Your task to perform on an android device: Show me productivity apps on the Play Store Image 0: 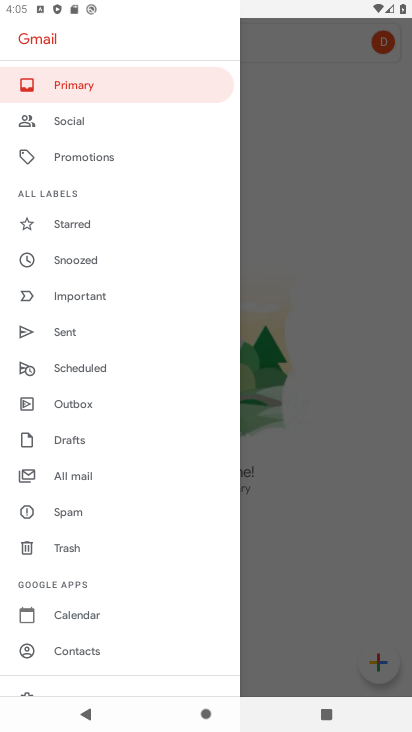
Step 0: press home button
Your task to perform on an android device: Show me productivity apps on the Play Store Image 1: 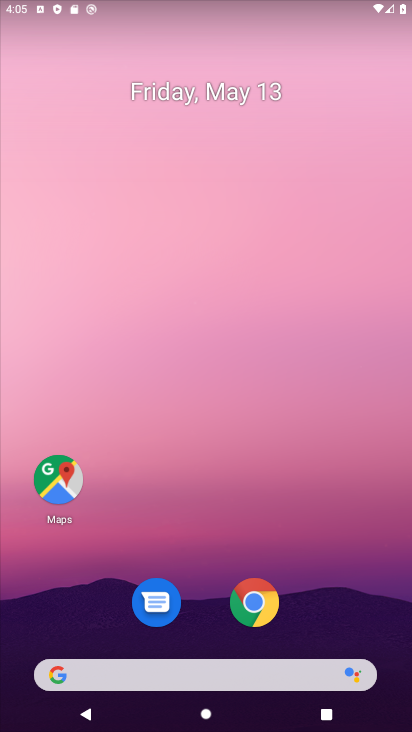
Step 1: drag from (196, 662) to (219, 282)
Your task to perform on an android device: Show me productivity apps on the Play Store Image 2: 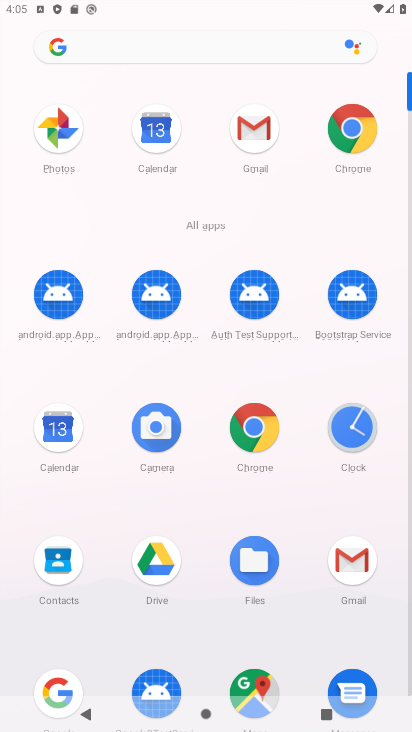
Step 2: drag from (203, 655) to (200, 358)
Your task to perform on an android device: Show me productivity apps on the Play Store Image 3: 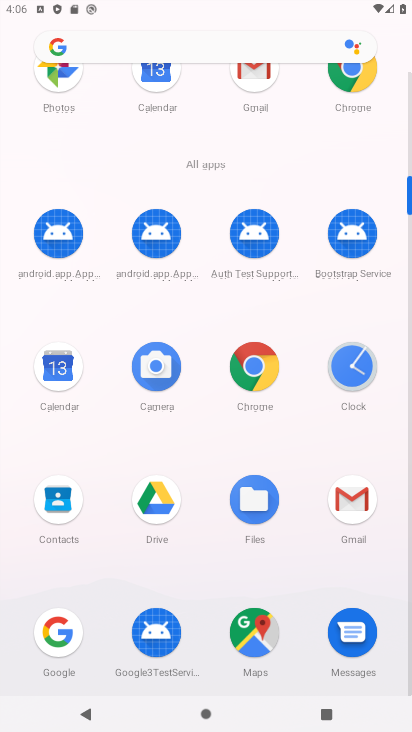
Step 3: drag from (198, 661) to (208, 360)
Your task to perform on an android device: Show me productivity apps on the Play Store Image 4: 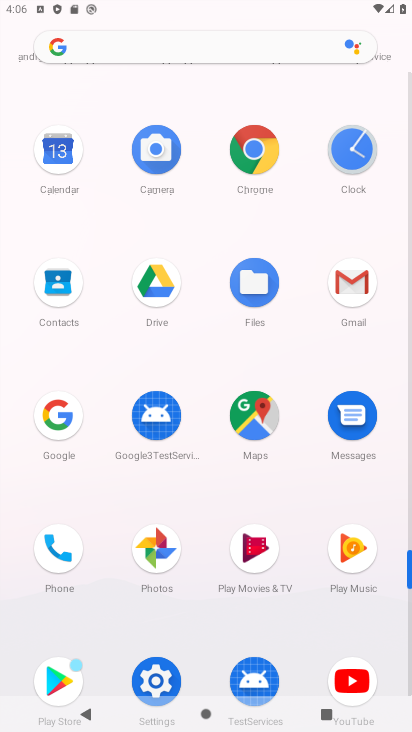
Step 4: click (53, 679)
Your task to perform on an android device: Show me productivity apps on the Play Store Image 5: 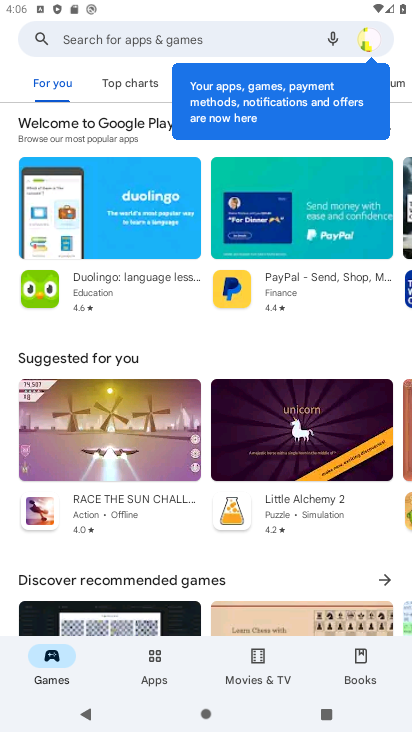
Step 5: click (159, 661)
Your task to perform on an android device: Show me productivity apps on the Play Store Image 6: 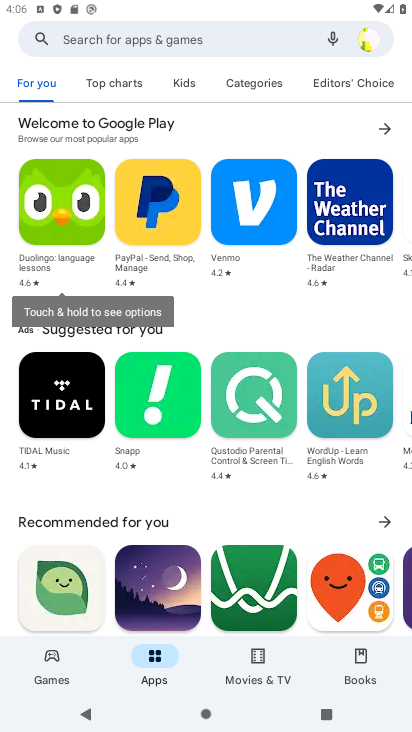
Step 6: task complete